Your task to perform on an android device: install app "YouTube Kids" Image 0: 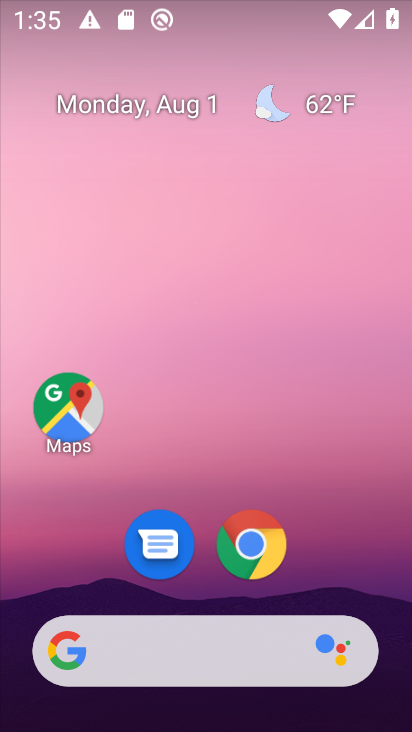
Step 0: drag from (375, 585) to (239, 39)
Your task to perform on an android device: install app "YouTube Kids" Image 1: 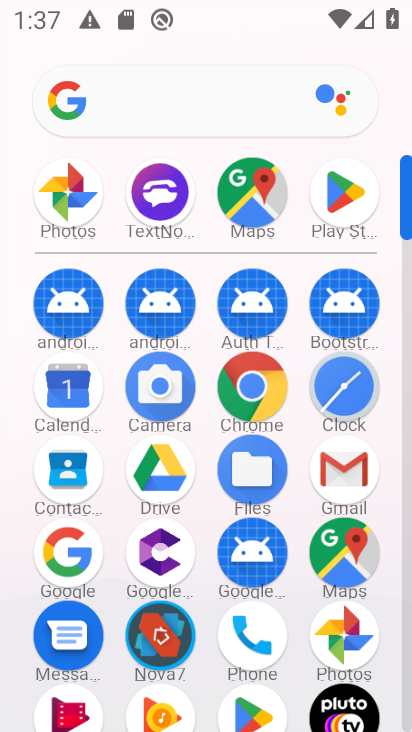
Step 1: click (371, 193)
Your task to perform on an android device: install app "YouTube Kids" Image 2: 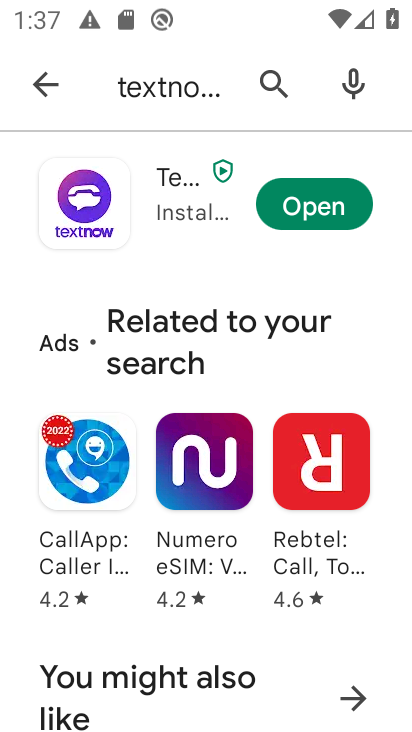
Step 2: press back button
Your task to perform on an android device: install app "YouTube Kids" Image 3: 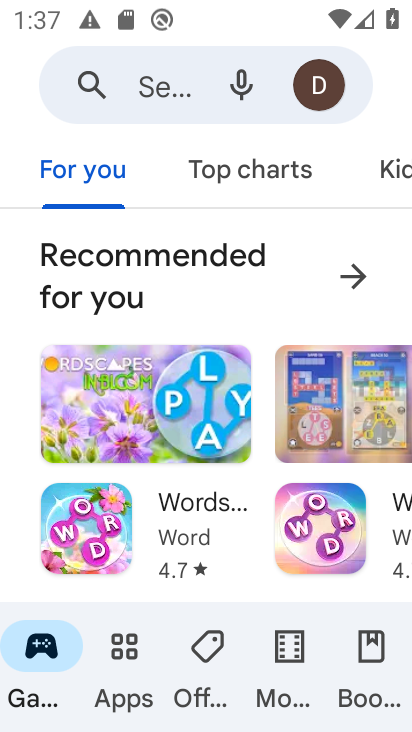
Step 3: click (138, 97)
Your task to perform on an android device: install app "YouTube Kids" Image 4: 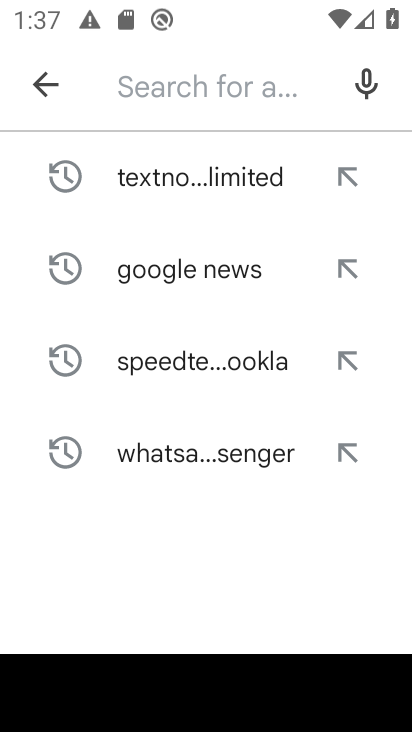
Step 4: type "YouTube Kids"
Your task to perform on an android device: install app "YouTube Kids" Image 5: 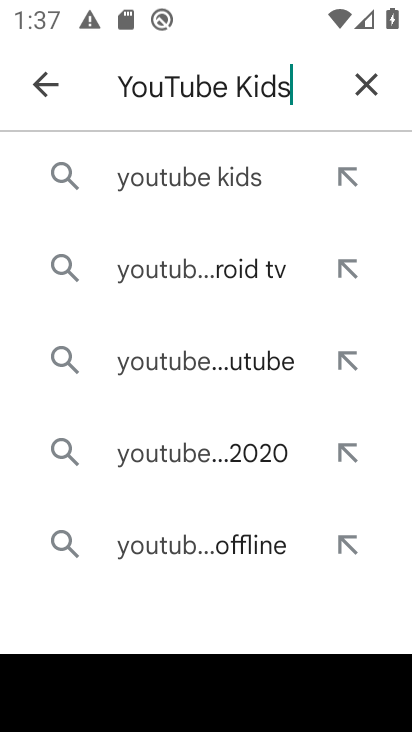
Step 5: click (171, 167)
Your task to perform on an android device: install app "YouTube Kids" Image 6: 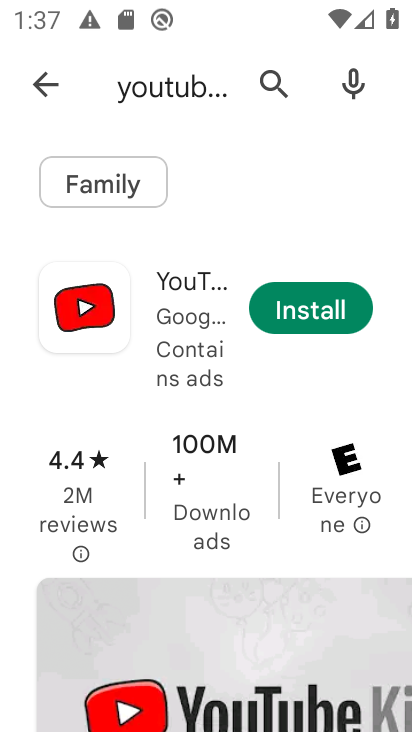
Step 6: click (289, 306)
Your task to perform on an android device: install app "YouTube Kids" Image 7: 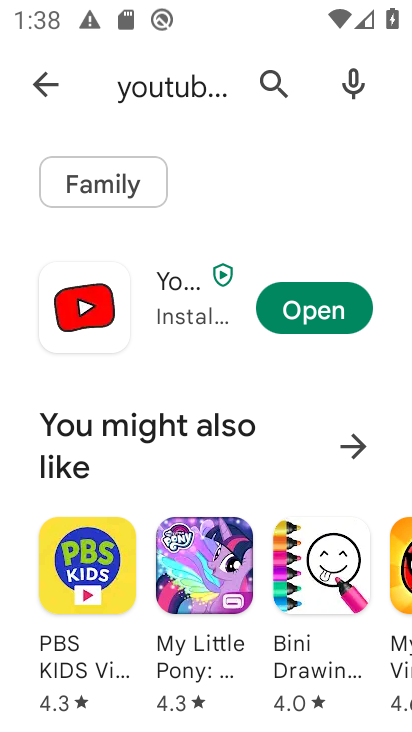
Step 7: task complete